Your task to perform on an android device: turn off location Image 0: 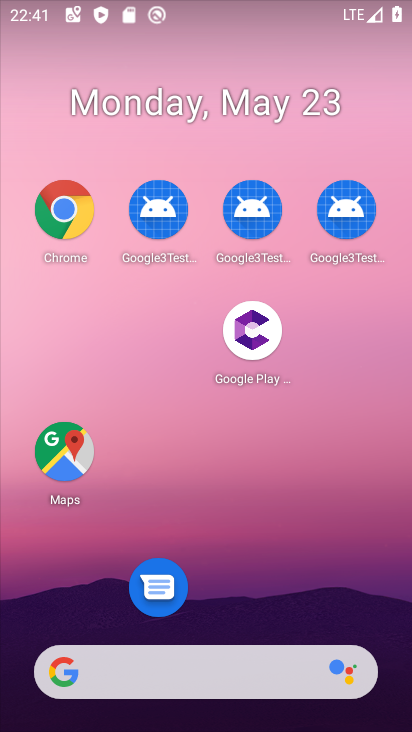
Step 0: drag from (329, 483) to (311, 246)
Your task to perform on an android device: turn off location Image 1: 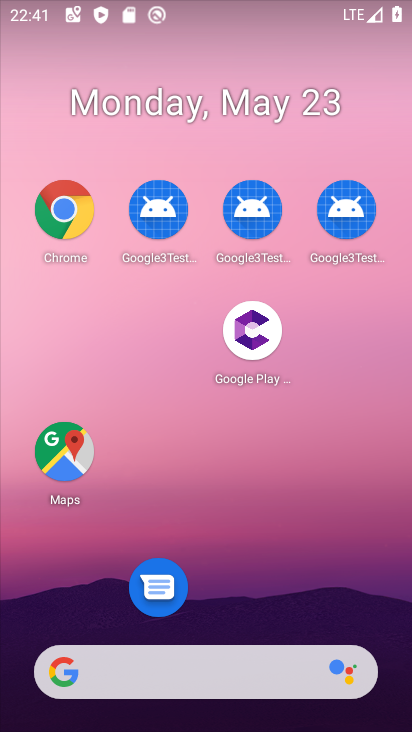
Step 1: drag from (367, 565) to (266, 217)
Your task to perform on an android device: turn off location Image 2: 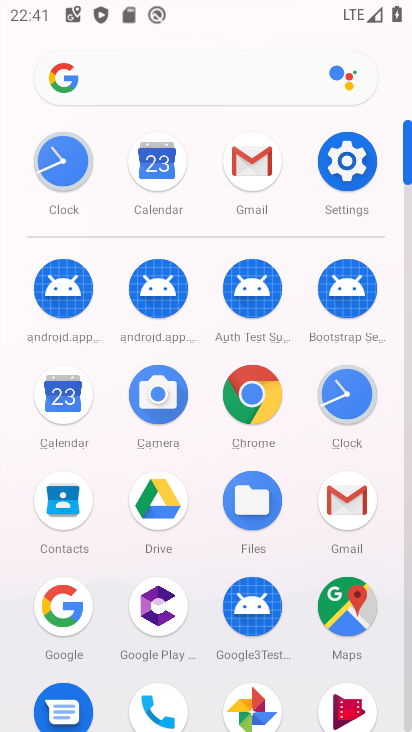
Step 2: click (348, 159)
Your task to perform on an android device: turn off location Image 3: 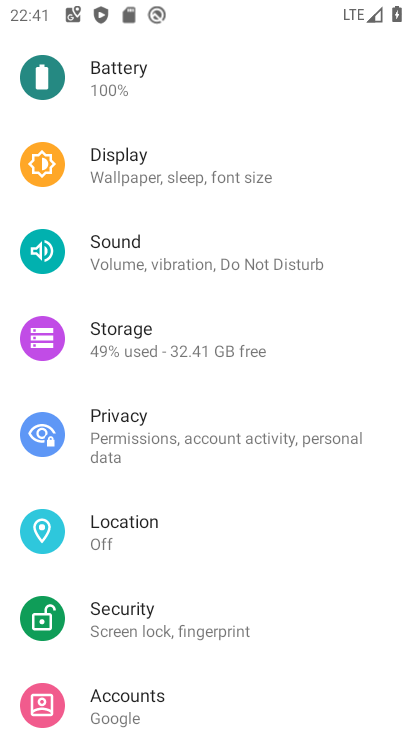
Step 3: click (149, 540)
Your task to perform on an android device: turn off location Image 4: 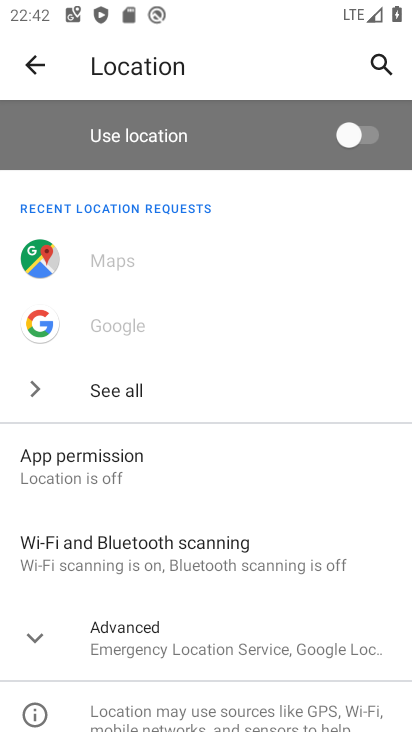
Step 4: task complete